Your task to perform on an android device: Open the stopwatch Image 0: 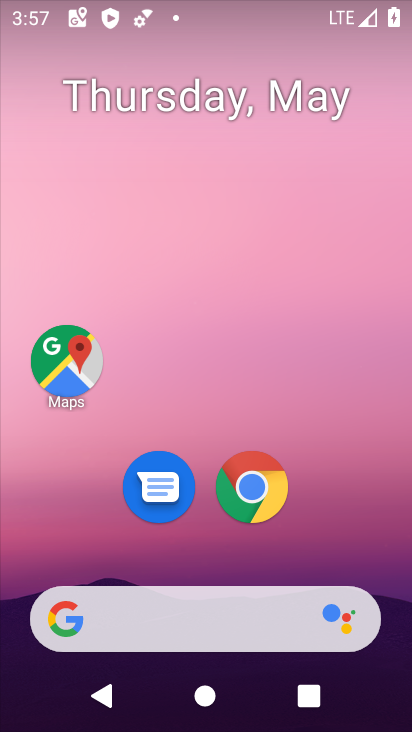
Step 0: drag from (304, 508) to (306, 116)
Your task to perform on an android device: Open the stopwatch Image 1: 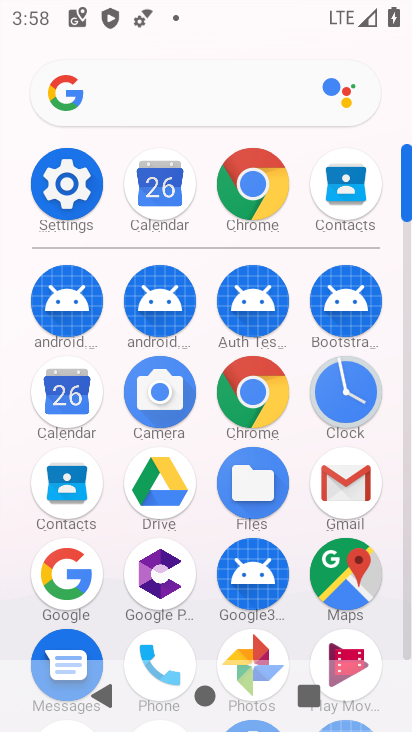
Step 1: click (358, 388)
Your task to perform on an android device: Open the stopwatch Image 2: 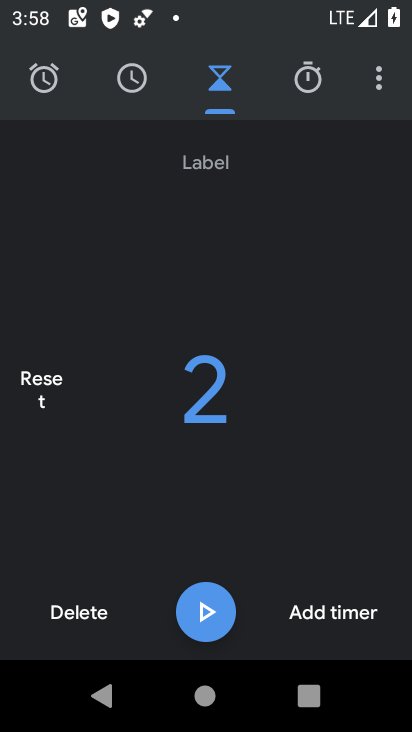
Step 2: click (317, 93)
Your task to perform on an android device: Open the stopwatch Image 3: 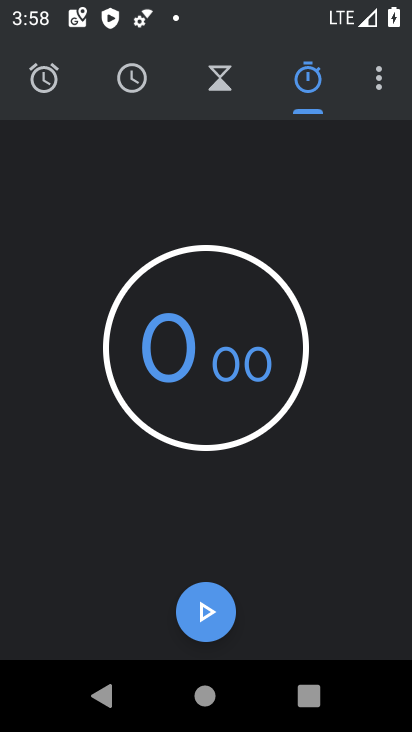
Step 3: task complete